Your task to perform on an android device: Clear the cart on target. Add "logitech g502" to the cart on target Image 0: 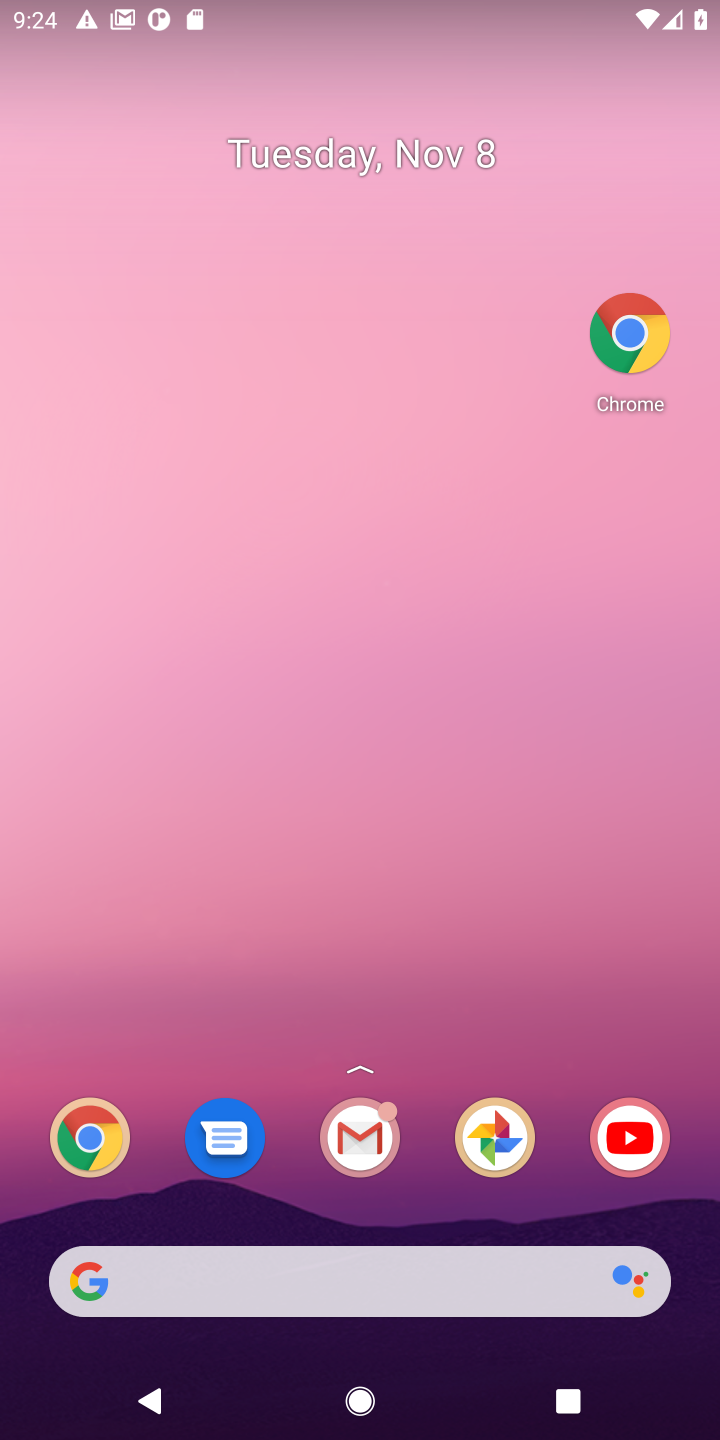
Step 0: drag from (300, 765) to (257, 35)
Your task to perform on an android device: Clear the cart on target. Add "logitech g502" to the cart on target Image 1: 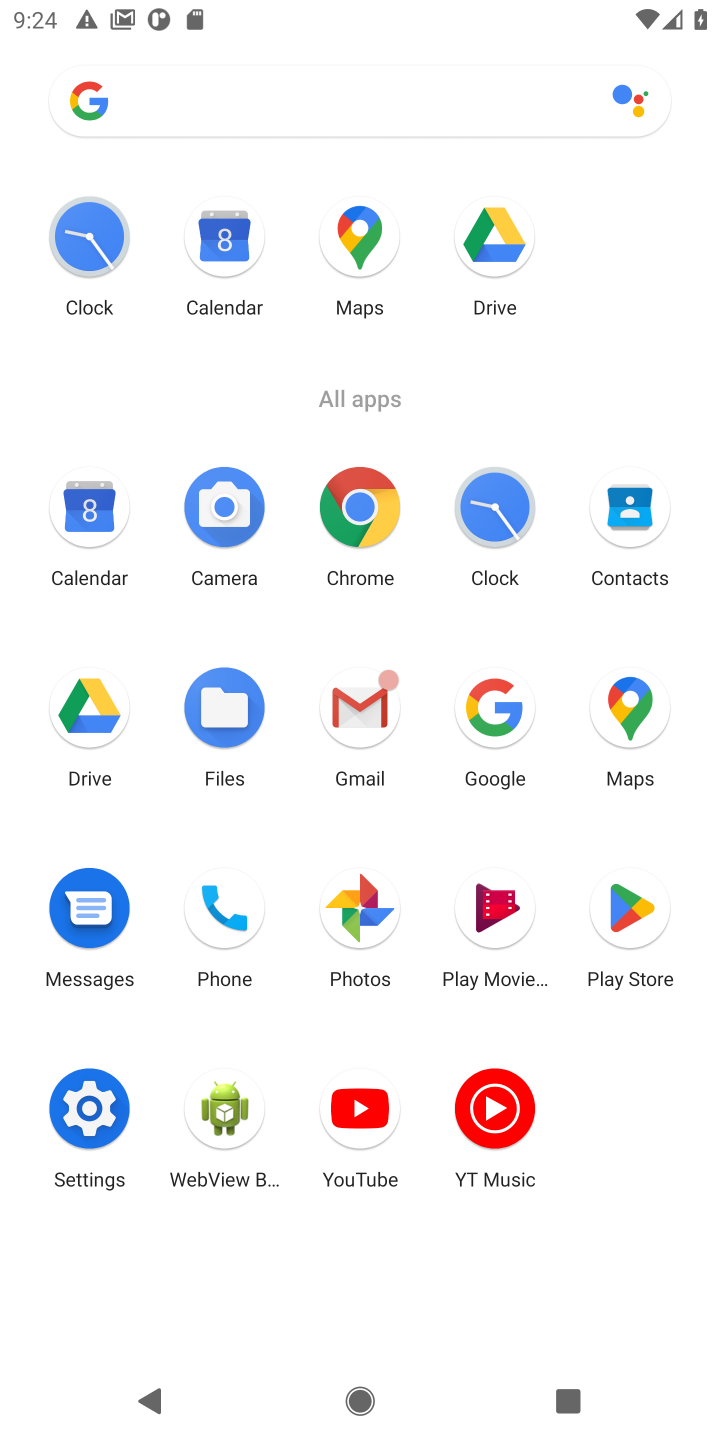
Step 1: click (355, 491)
Your task to perform on an android device: Clear the cart on target. Add "logitech g502" to the cart on target Image 2: 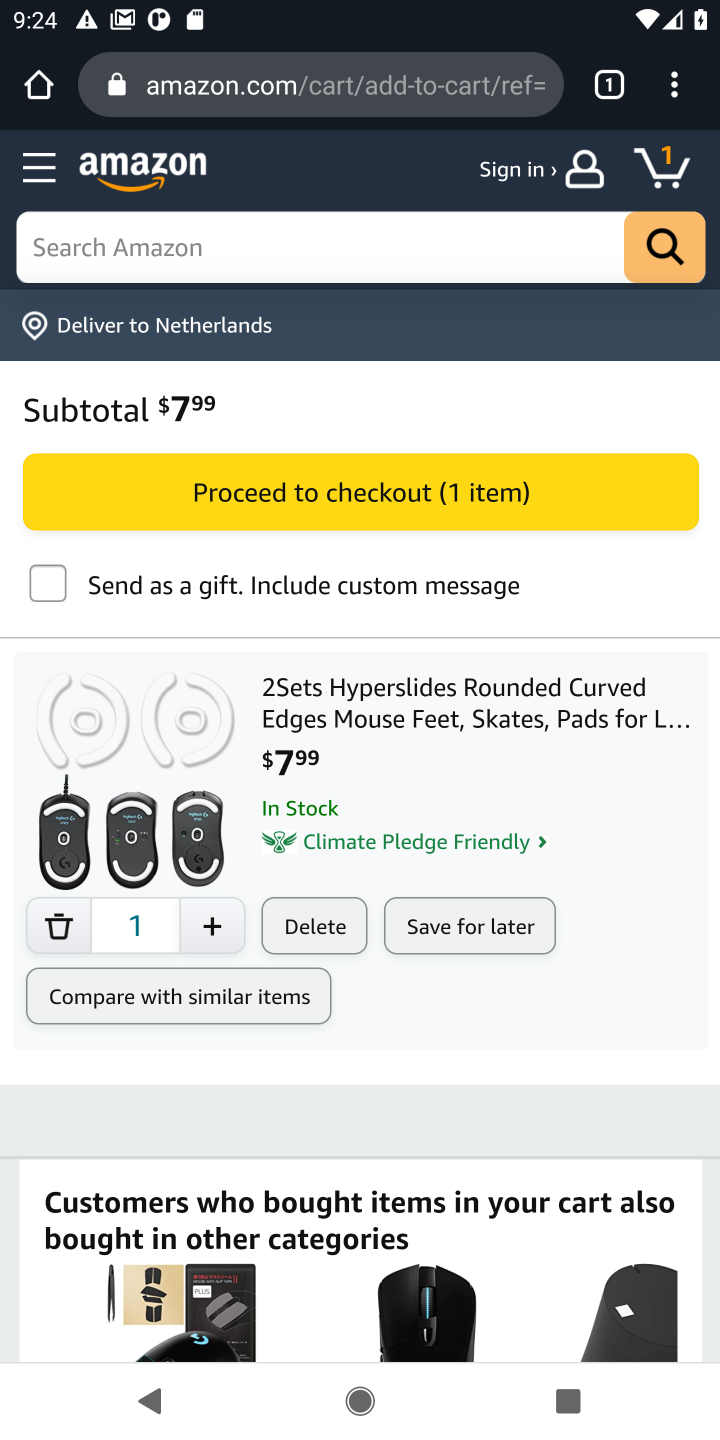
Step 2: click (271, 97)
Your task to perform on an android device: Clear the cart on target. Add "logitech g502" to the cart on target Image 3: 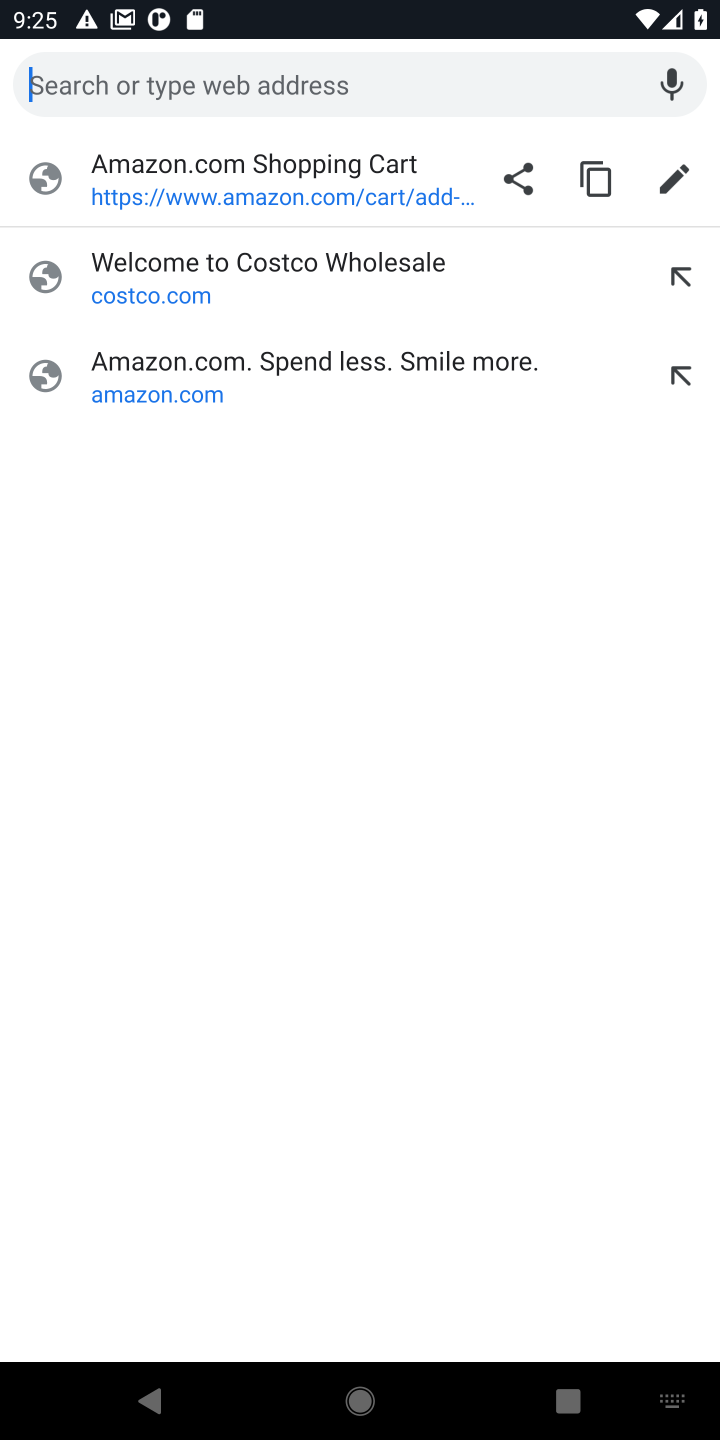
Step 3: type "target"
Your task to perform on an android device: Clear the cart on target. Add "logitech g502" to the cart on target Image 4: 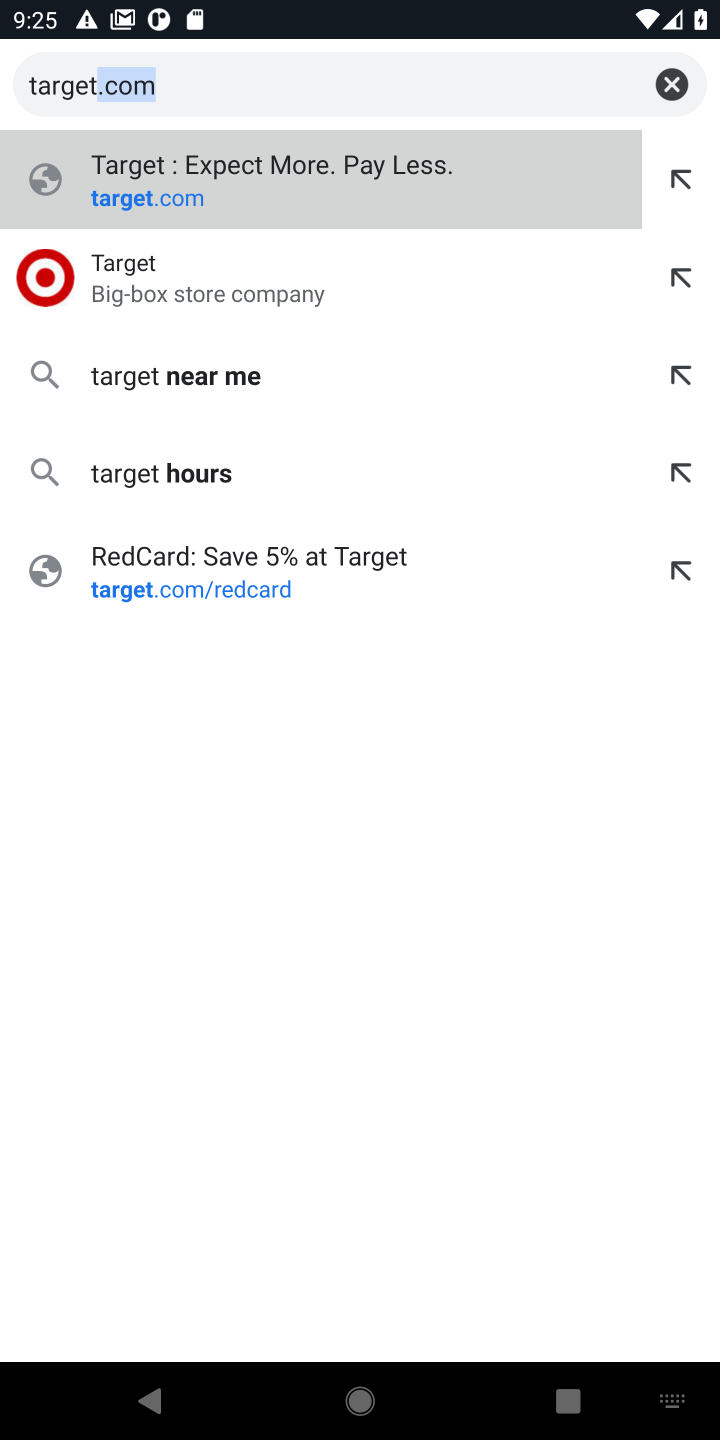
Step 4: press enter
Your task to perform on an android device: Clear the cart on target. Add "logitech g502" to the cart on target Image 5: 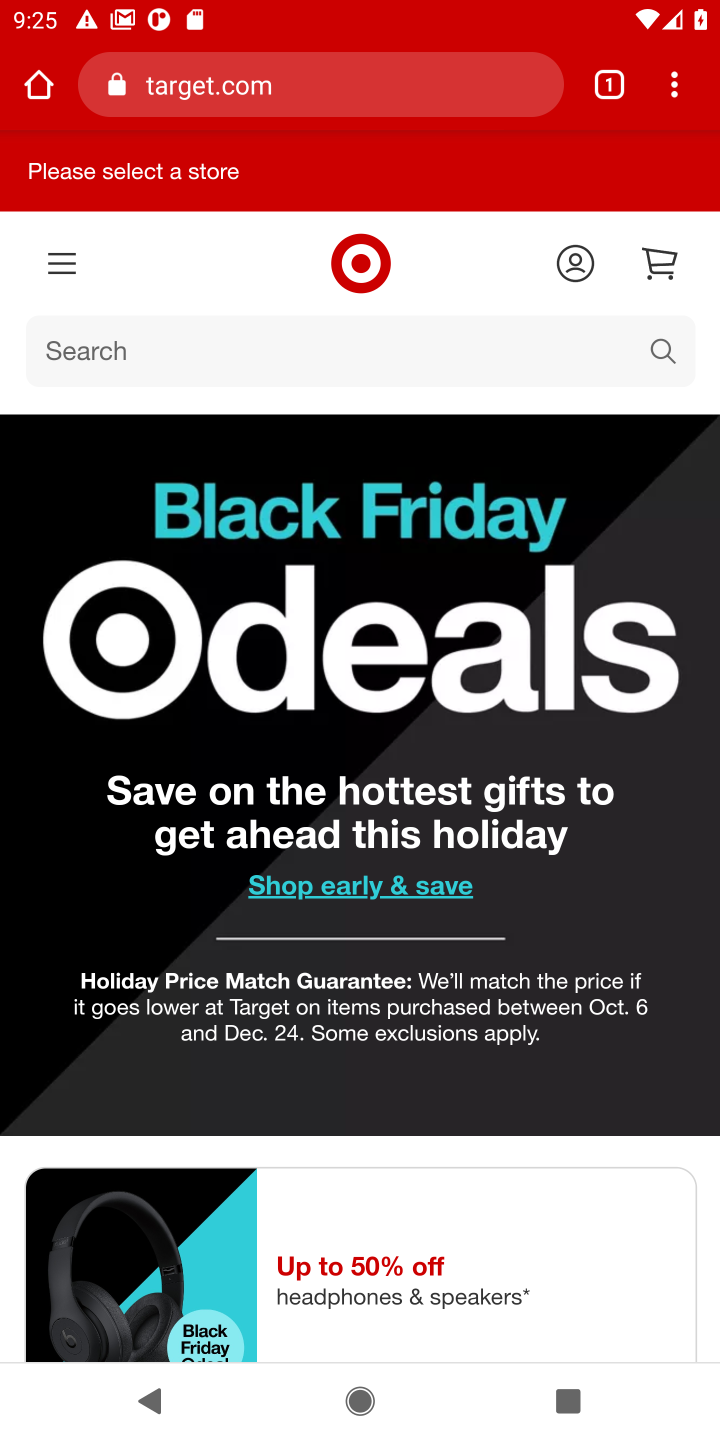
Step 5: click (61, 372)
Your task to perform on an android device: Clear the cart on target. Add "logitech g502" to the cart on target Image 6: 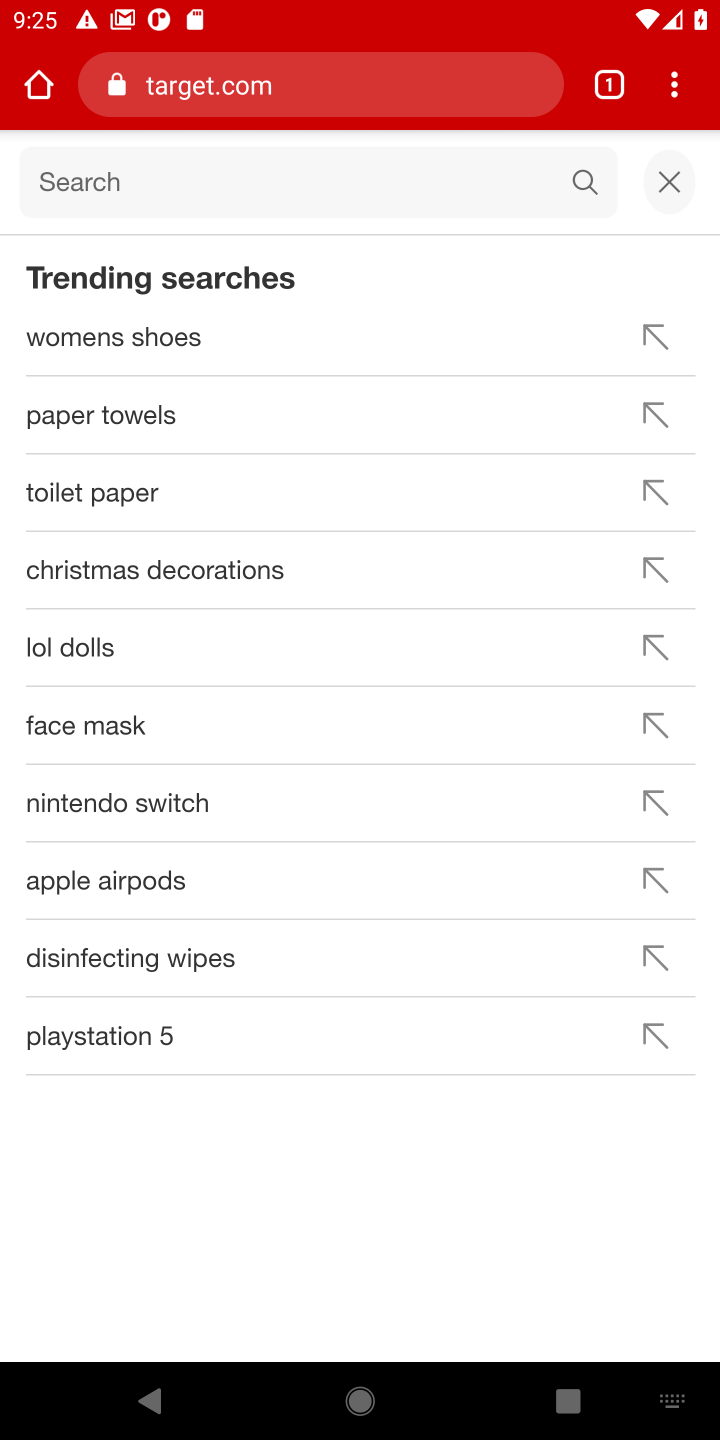
Step 6: type "logitech g502"
Your task to perform on an android device: Clear the cart on target. Add "logitech g502" to the cart on target Image 7: 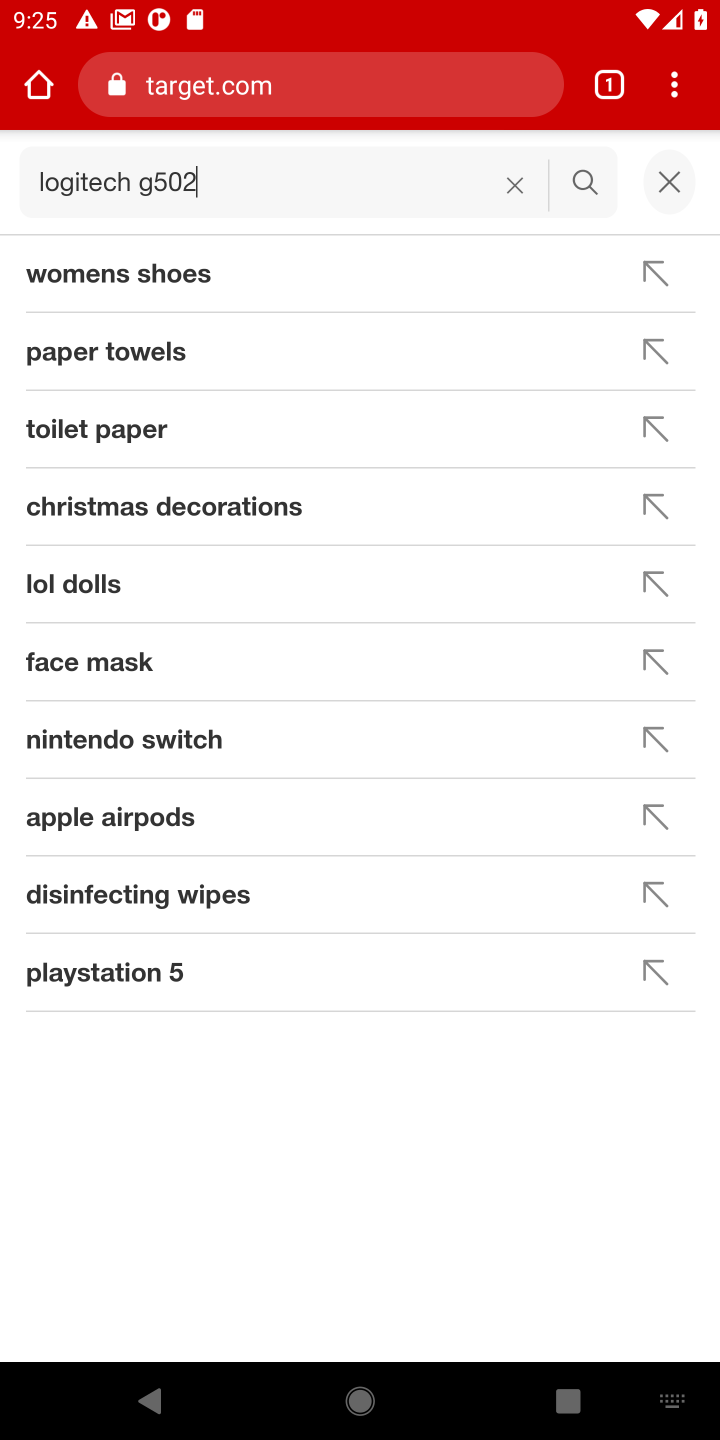
Step 7: press enter
Your task to perform on an android device: Clear the cart on target. Add "logitech g502" to the cart on target Image 8: 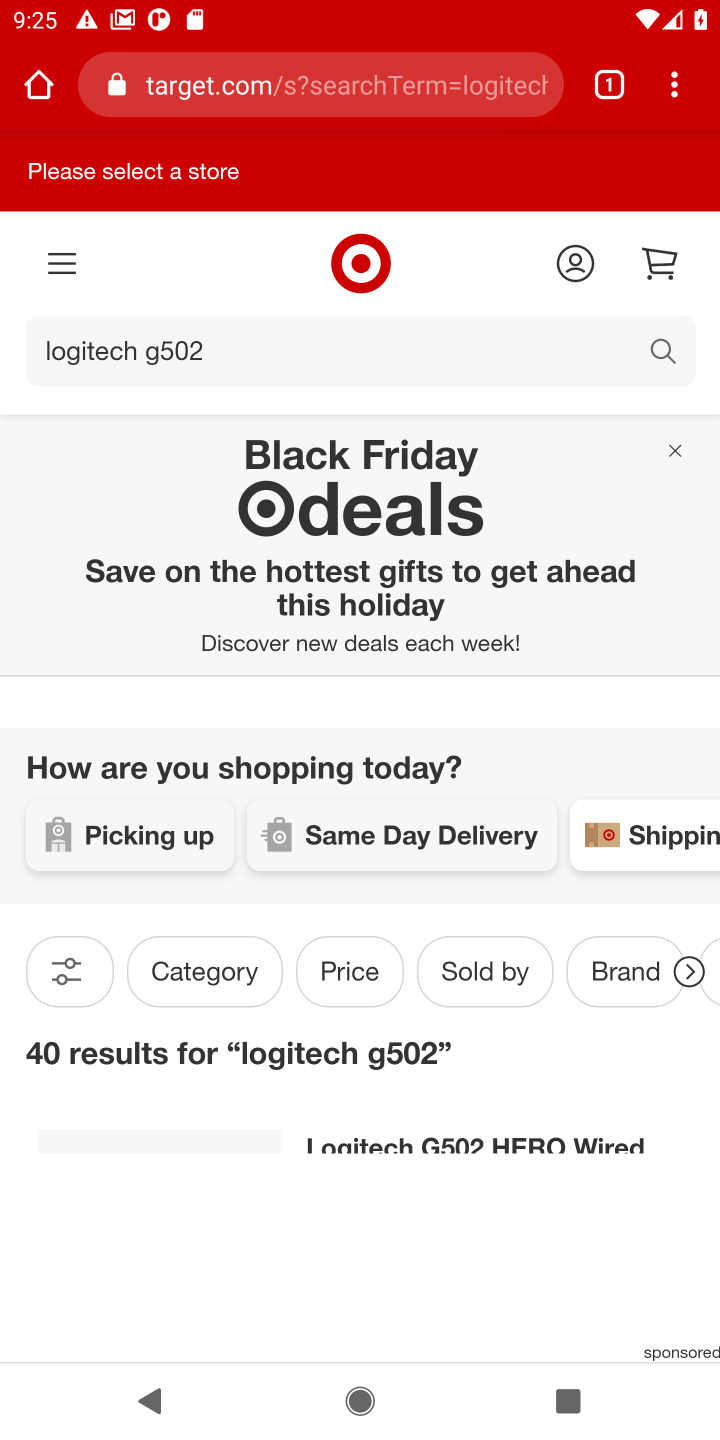
Step 8: drag from (504, 1238) to (488, 509)
Your task to perform on an android device: Clear the cart on target. Add "logitech g502" to the cart on target Image 9: 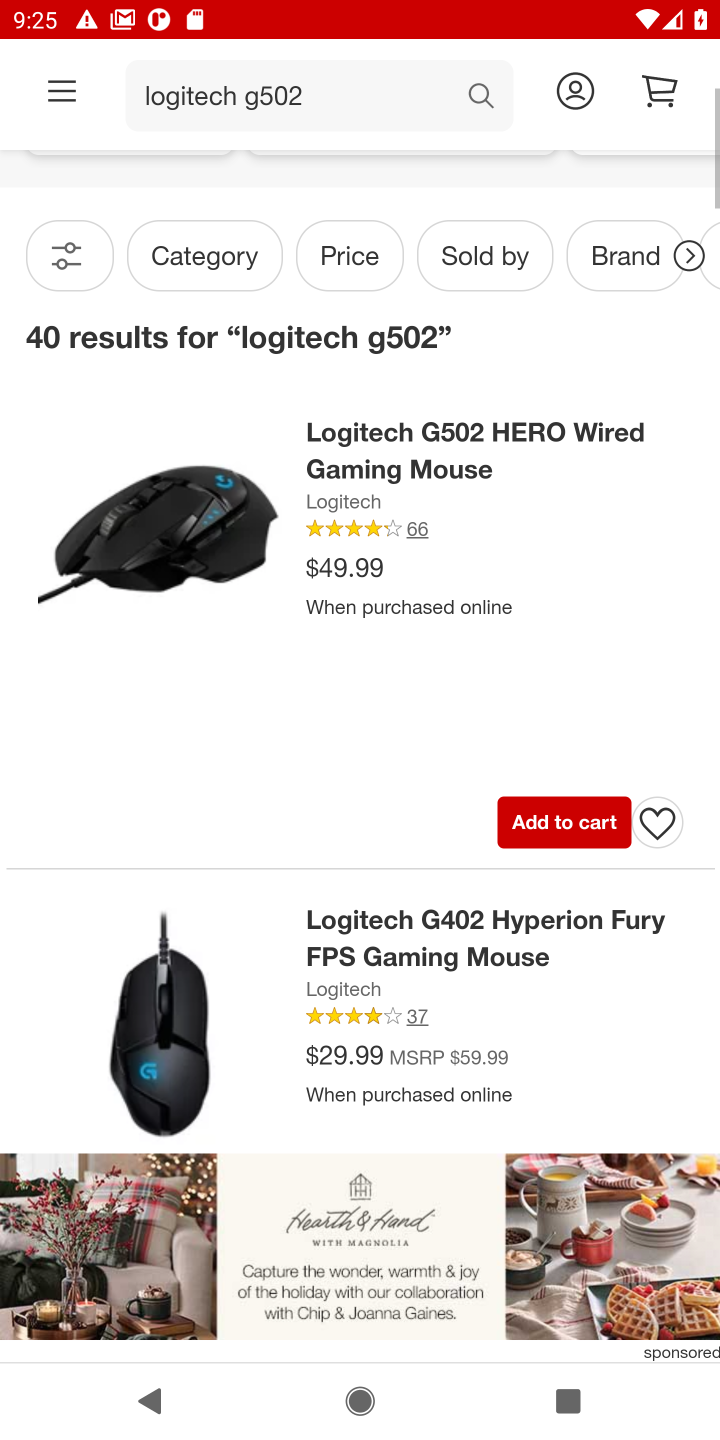
Step 9: drag from (408, 630) to (404, 513)
Your task to perform on an android device: Clear the cart on target. Add "logitech g502" to the cart on target Image 10: 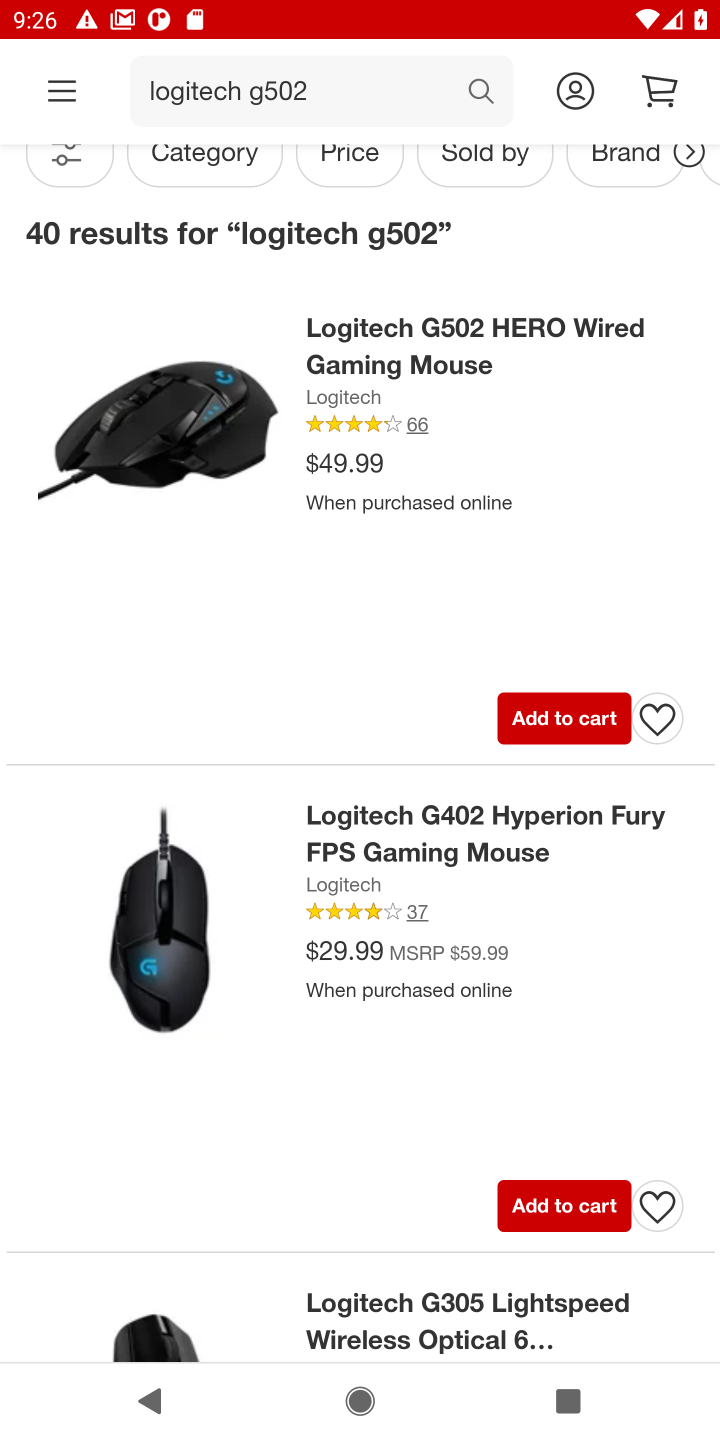
Step 10: click (541, 715)
Your task to perform on an android device: Clear the cart on target. Add "logitech g502" to the cart on target Image 11: 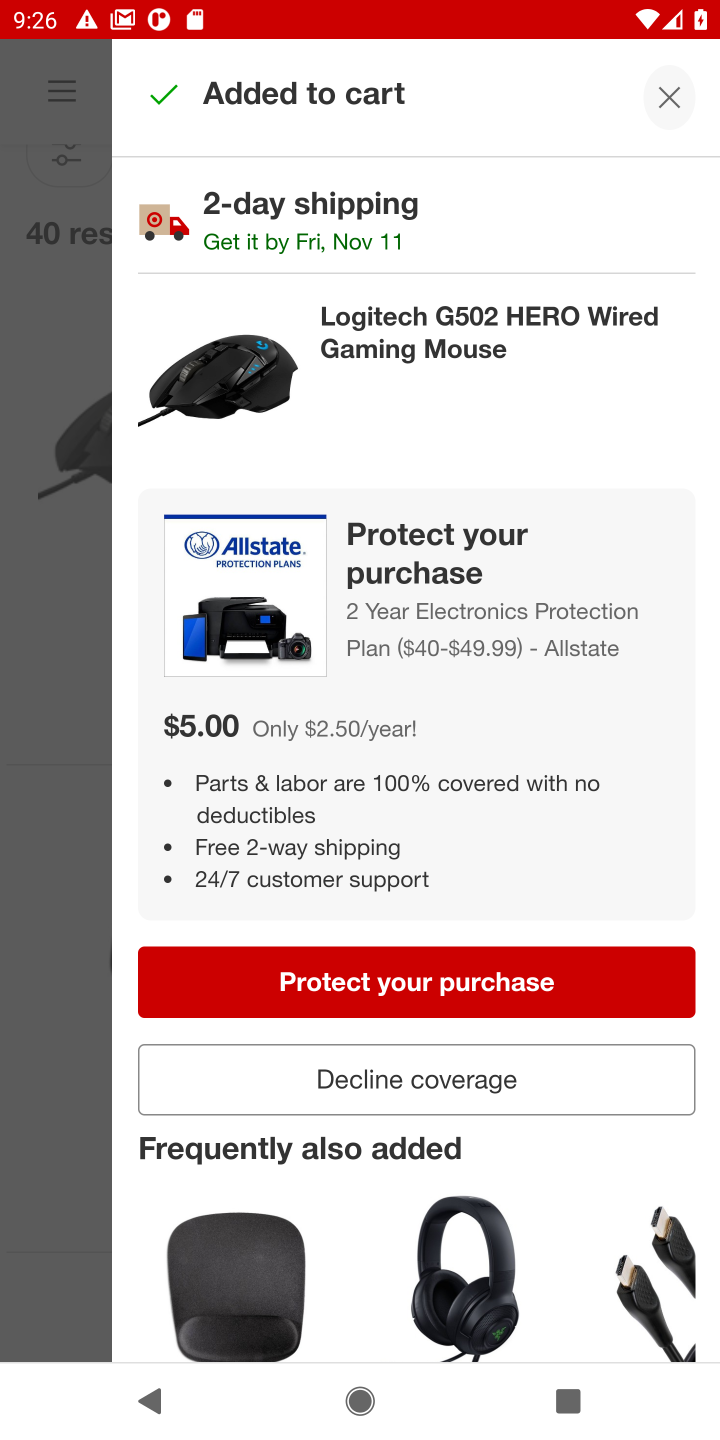
Step 11: task complete